Your task to perform on an android device: Check the news Image 0: 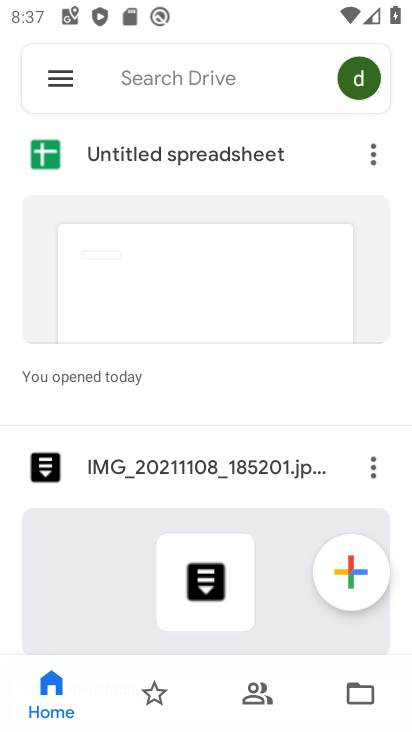
Step 0: press home button
Your task to perform on an android device: Check the news Image 1: 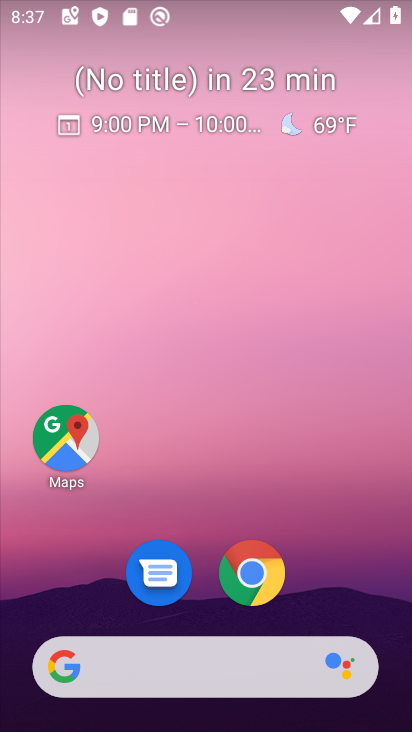
Step 1: click (249, 576)
Your task to perform on an android device: Check the news Image 2: 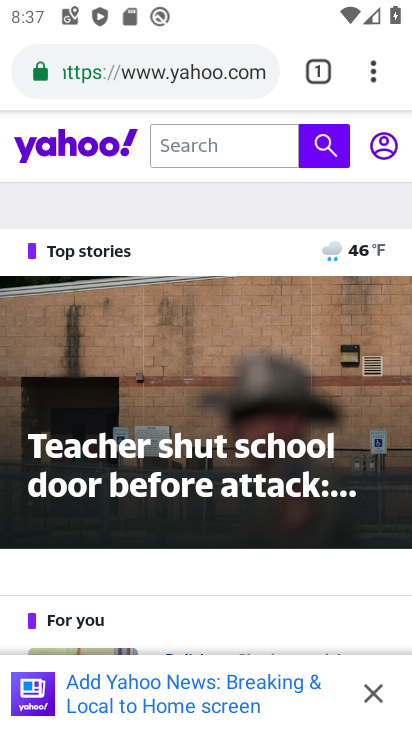
Step 2: click (214, 60)
Your task to perform on an android device: Check the news Image 3: 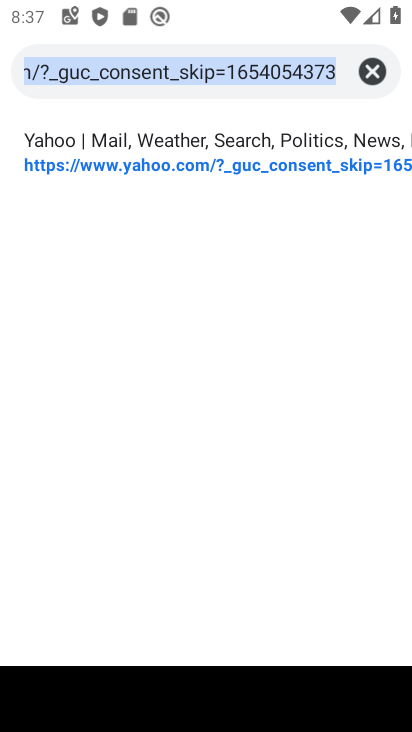
Step 3: type "news"
Your task to perform on an android device: Check the news Image 4: 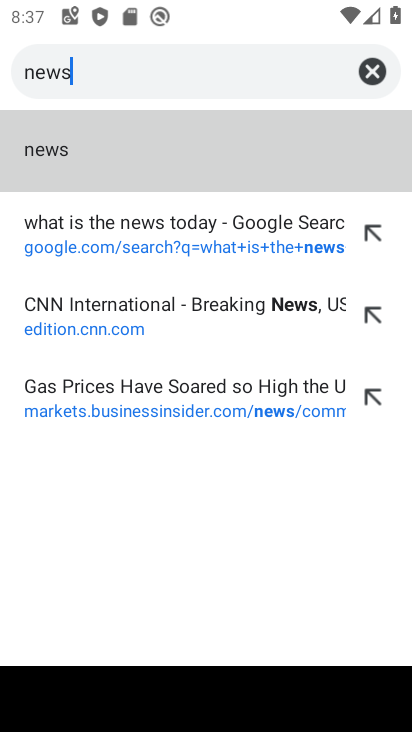
Step 4: click (121, 172)
Your task to perform on an android device: Check the news Image 5: 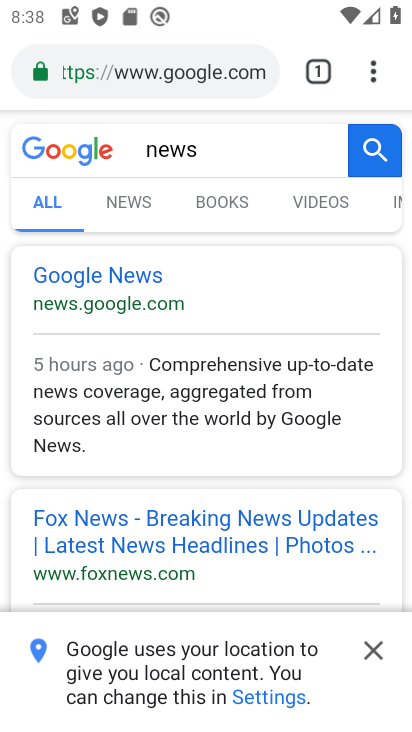
Step 5: click (367, 648)
Your task to perform on an android device: Check the news Image 6: 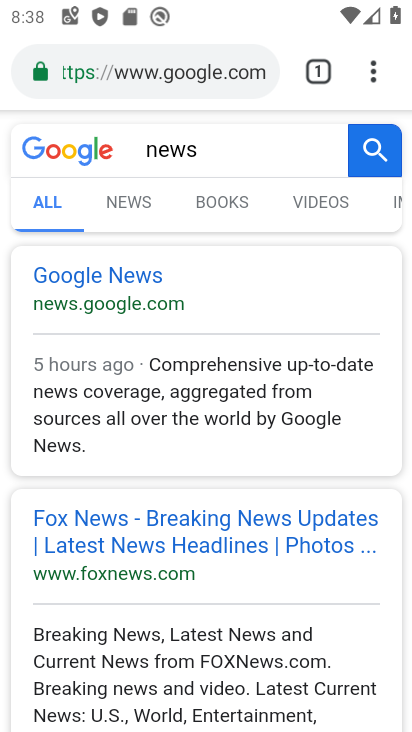
Step 6: click (175, 274)
Your task to perform on an android device: Check the news Image 7: 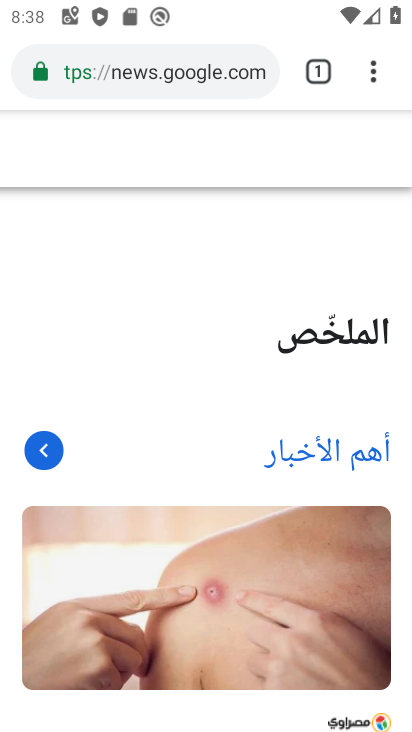
Step 7: task complete